Your task to perform on an android device: allow notifications from all sites in the chrome app Image 0: 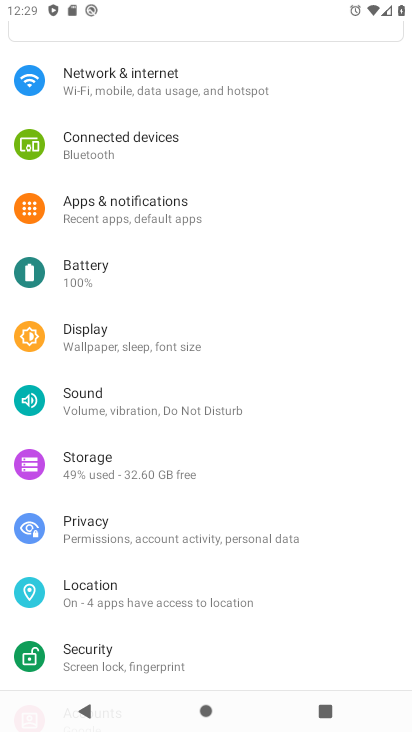
Step 0: press home button
Your task to perform on an android device: allow notifications from all sites in the chrome app Image 1: 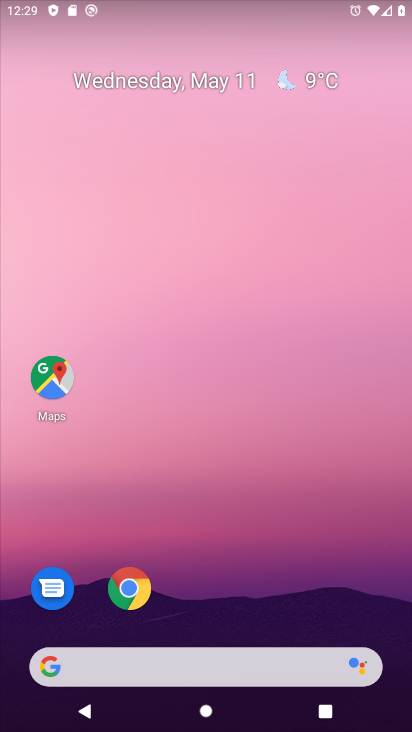
Step 1: click (127, 592)
Your task to perform on an android device: allow notifications from all sites in the chrome app Image 2: 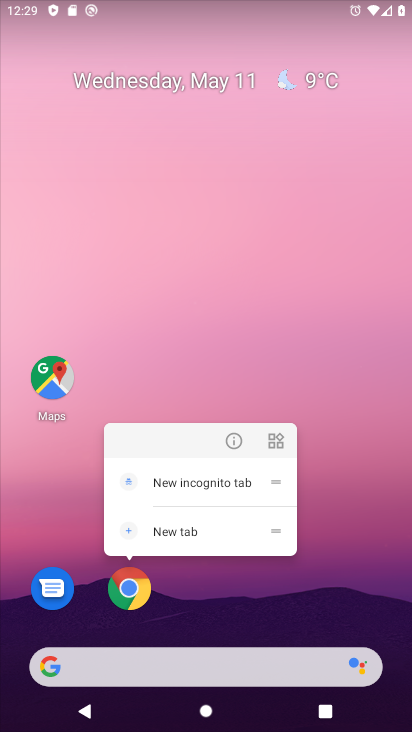
Step 2: click (132, 593)
Your task to perform on an android device: allow notifications from all sites in the chrome app Image 3: 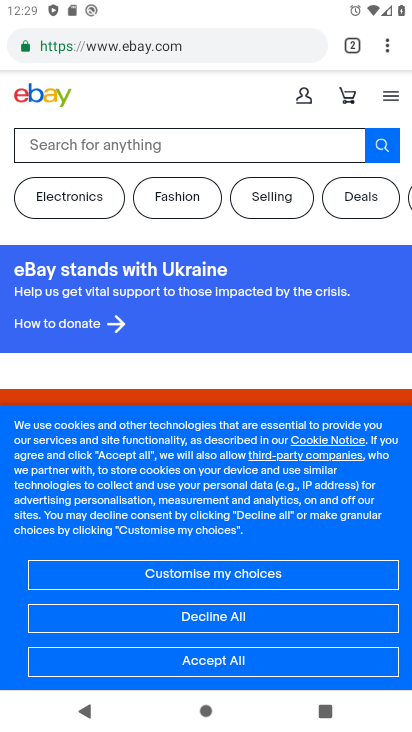
Step 3: drag from (386, 43) to (238, 555)
Your task to perform on an android device: allow notifications from all sites in the chrome app Image 4: 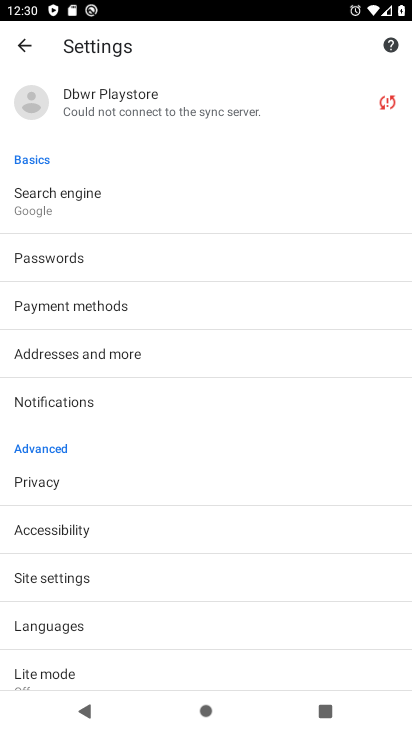
Step 4: click (75, 579)
Your task to perform on an android device: allow notifications from all sites in the chrome app Image 5: 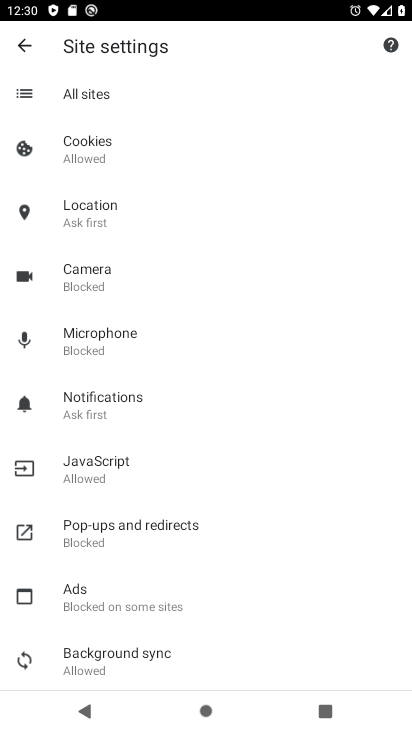
Step 5: click (115, 396)
Your task to perform on an android device: allow notifications from all sites in the chrome app Image 6: 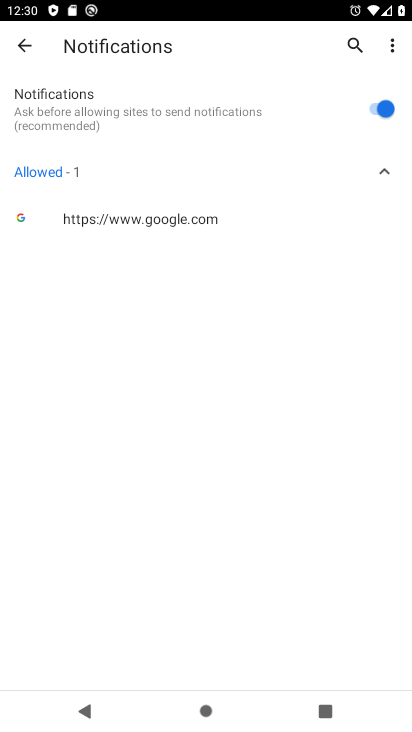
Step 6: task complete